Your task to perform on an android device: Open calendar and show me the third week of next month Image 0: 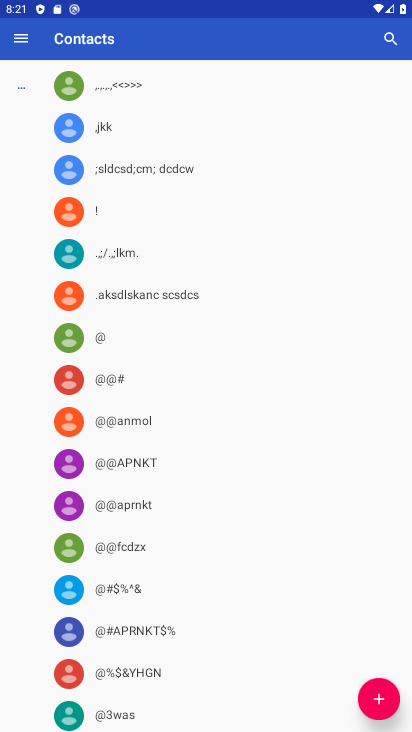
Step 0: press home button
Your task to perform on an android device: Open calendar and show me the third week of next month Image 1: 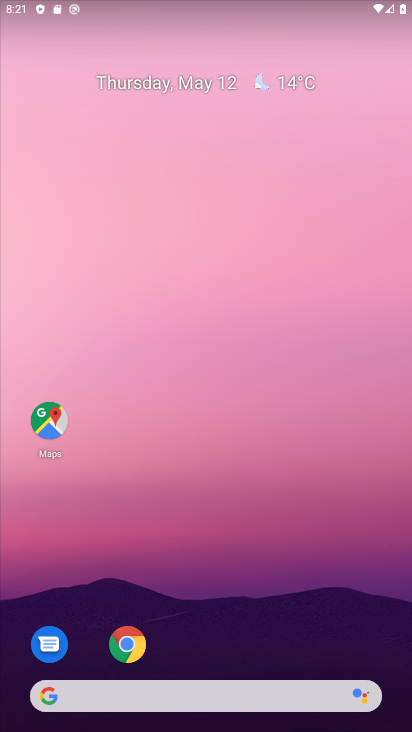
Step 1: drag from (264, 629) to (249, 58)
Your task to perform on an android device: Open calendar and show me the third week of next month Image 2: 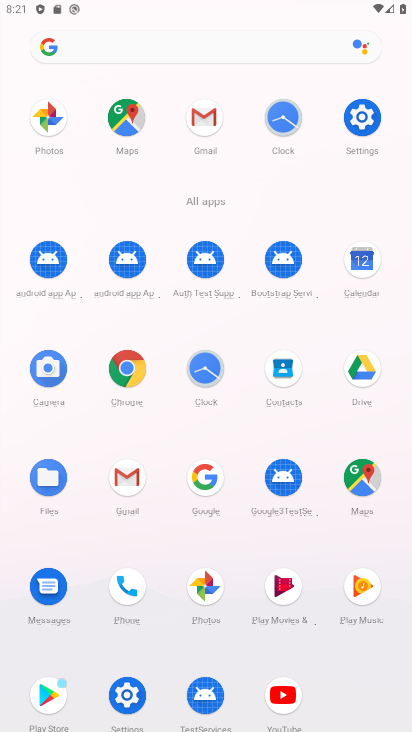
Step 2: click (358, 255)
Your task to perform on an android device: Open calendar and show me the third week of next month Image 3: 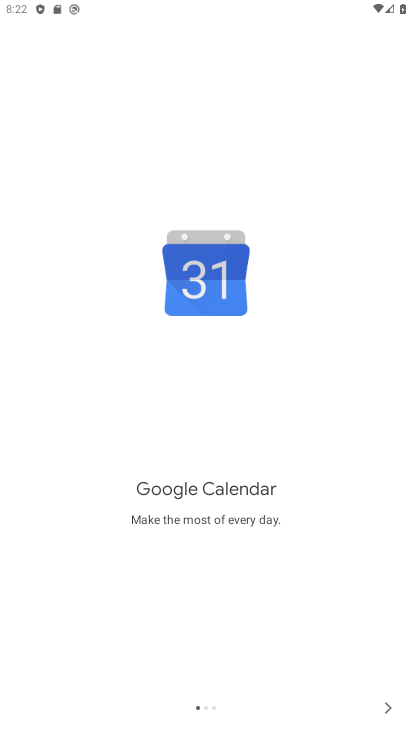
Step 3: click (383, 706)
Your task to perform on an android device: Open calendar and show me the third week of next month Image 4: 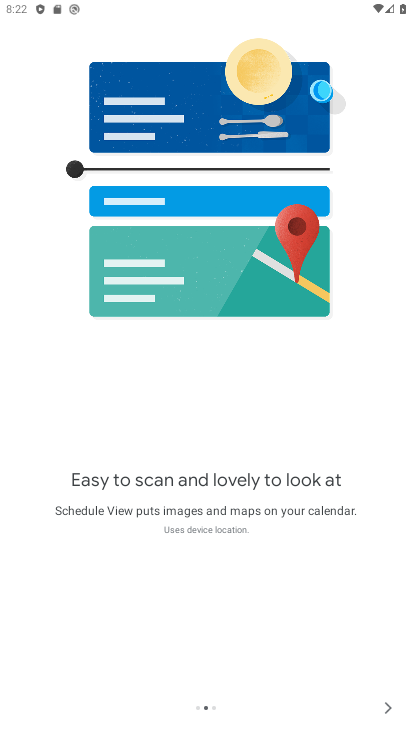
Step 4: click (385, 704)
Your task to perform on an android device: Open calendar and show me the third week of next month Image 5: 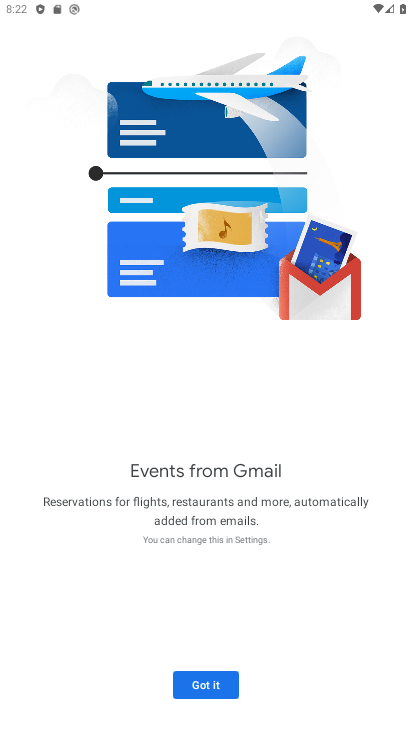
Step 5: click (227, 684)
Your task to perform on an android device: Open calendar and show me the third week of next month Image 6: 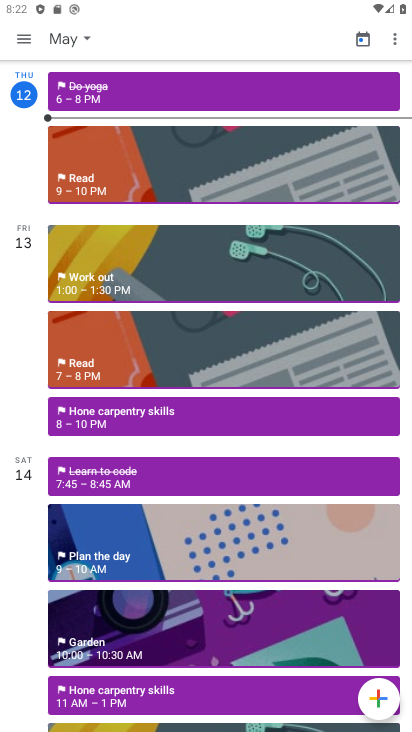
Step 6: click (76, 36)
Your task to perform on an android device: Open calendar and show me the third week of next month Image 7: 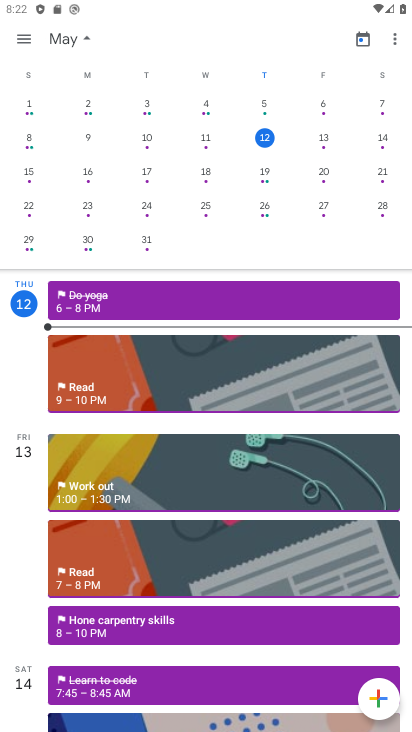
Step 7: drag from (349, 135) to (38, 154)
Your task to perform on an android device: Open calendar and show me the third week of next month Image 8: 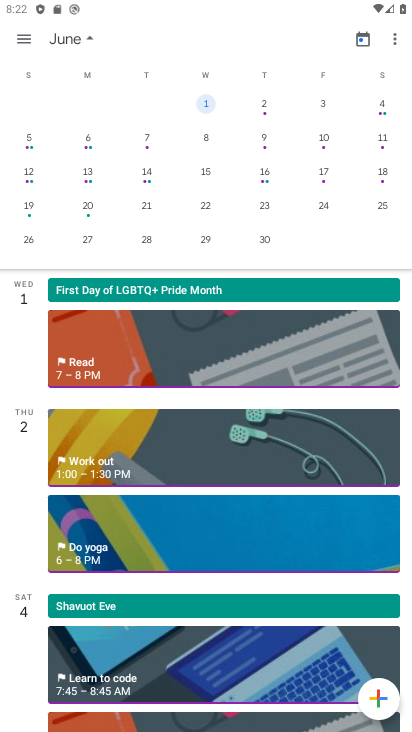
Step 8: click (35, 205)
Your task to perform on an android device: Open calendar and show me the third week of next month Image 9: 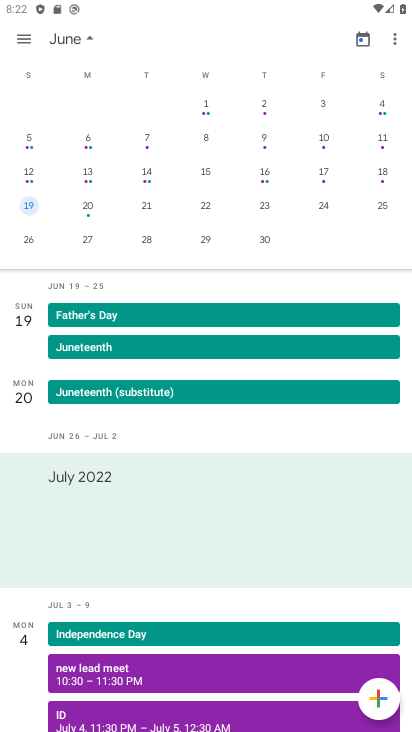
Step 9: task complete